Your task to perform on an android device: change the clock style Image 0: 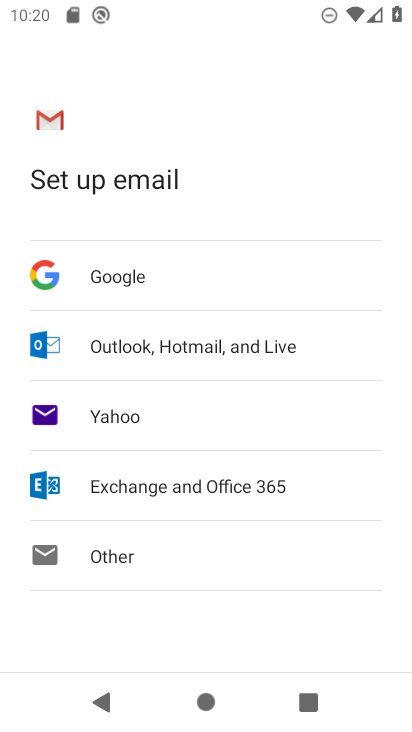
Step 0: press home button
Your task to perform on an android device: change the clock style Image 1: 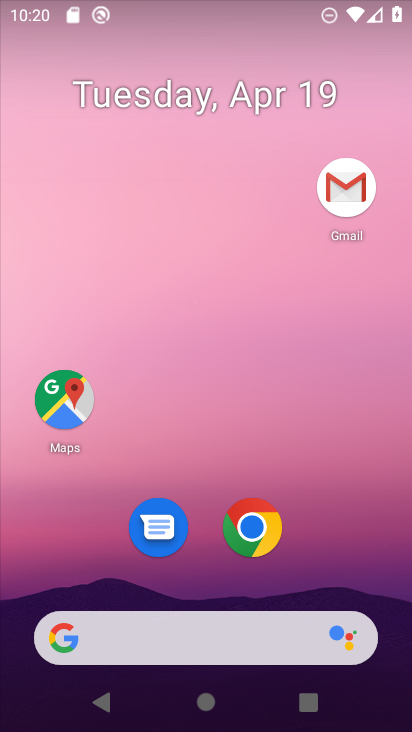
Step 1: drag from (373, 471) to (365, 70)
Your task to perform on an android device: change the clock style Image 2: 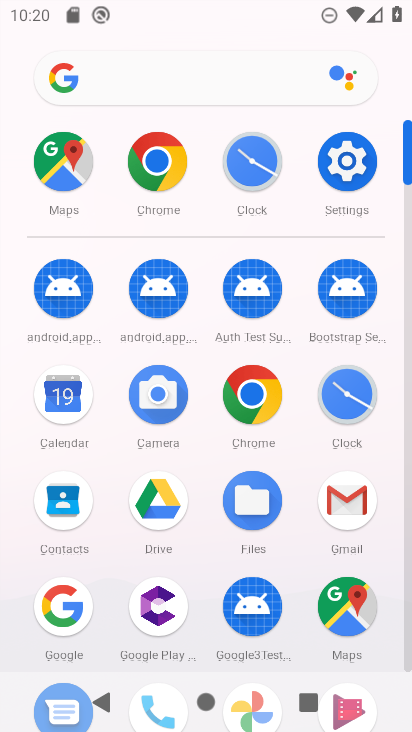
Step 2: click (353, 399)
Your task to perform on an android device: change the clock style Image 3: 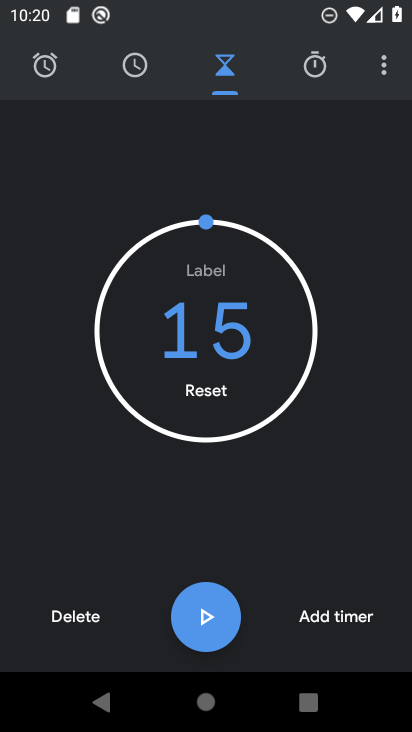
Step 3: click (382, 80)
Your task to perform on an android device: change the clock style Image 4: 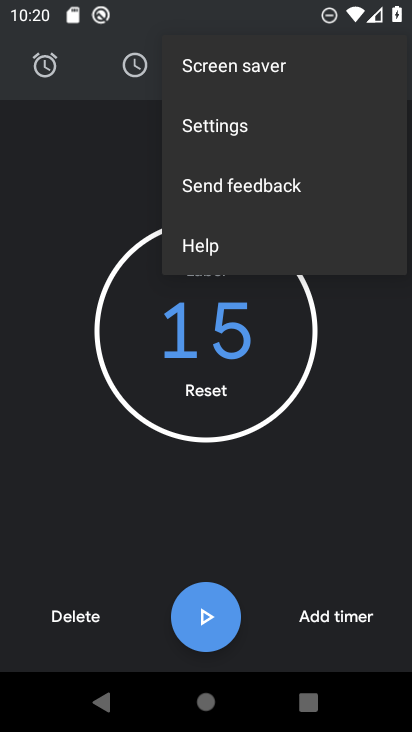
Step 4: click (247, 137)
Your task to perform on an android device: change the clock style Image 5: 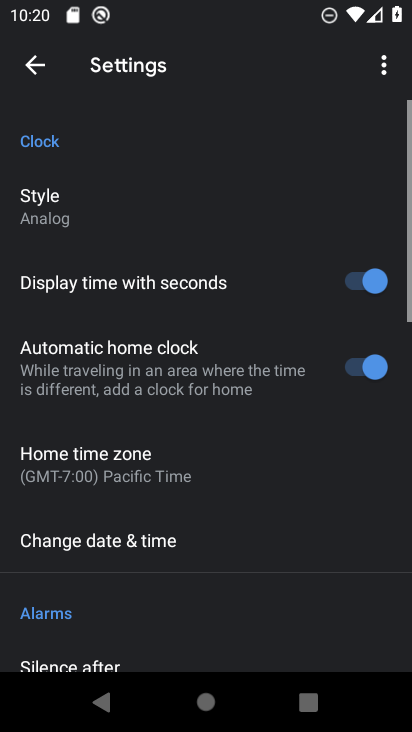
Step 5: click (90, 227)
Your task to perform on an android device: change the clock style Image 6: 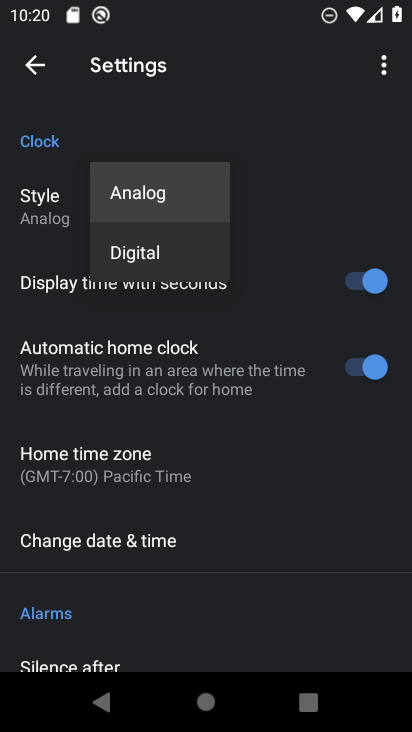
Step 6: click (150, 260)
Your task to perform on an android device: change the clock style Image 7: 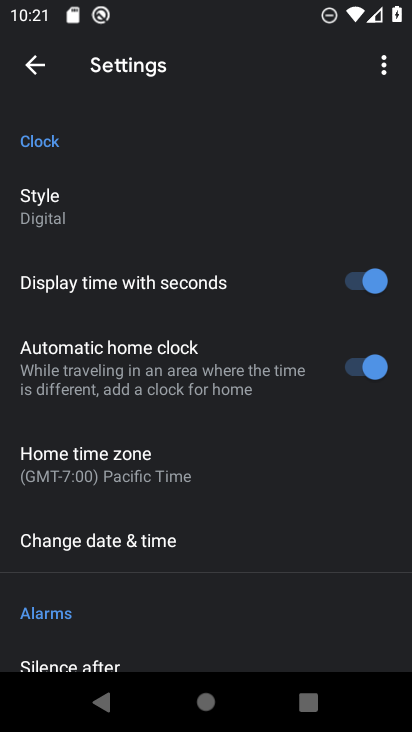
Step 7: task complete